Your task to perform on an android device: Open Google Chrome and open the bookmarks view Image 0: 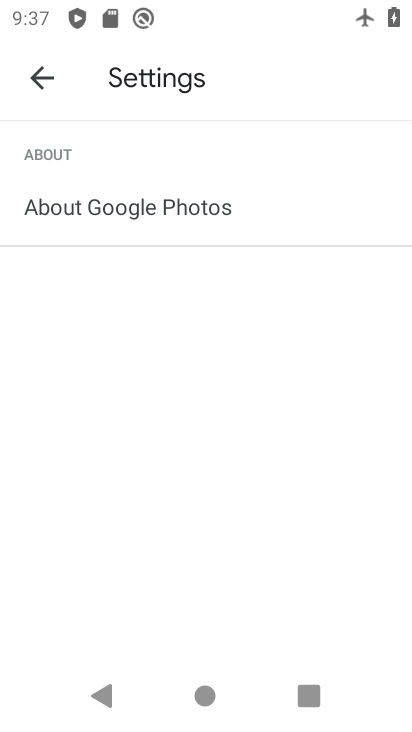
Step 0: press home button
Your task to perform on an android device: Open Google Chrome and open the bookmarks view Image 1: 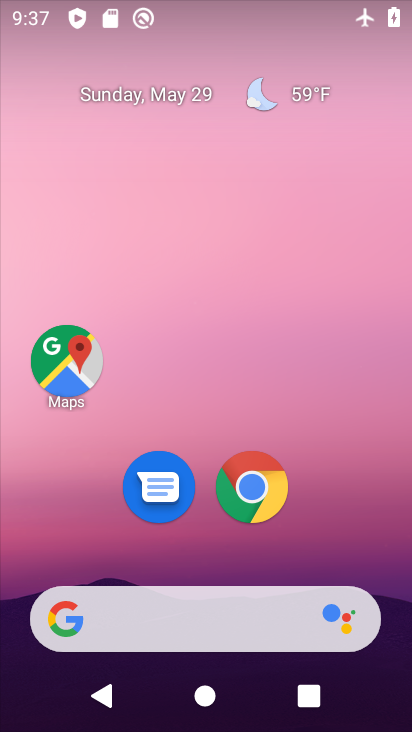
Step 1: click (242, 485)
Your task to perform on an android device: Open Google Chrome and open the bookmarks view Image 2: 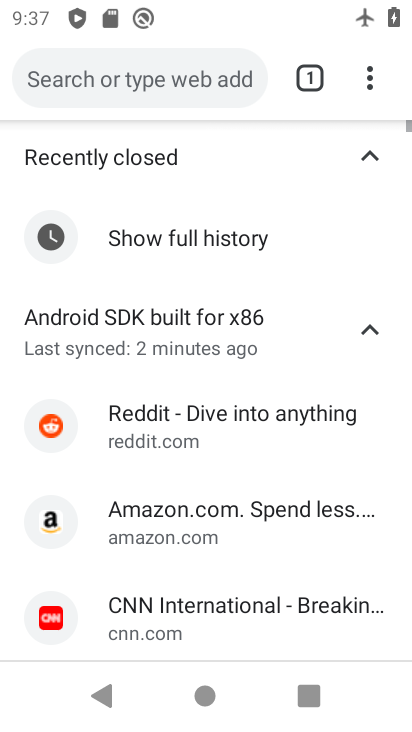
Step 2: click (362, 77)
Your task to perform on an android device: Open Google Chrome and open the bookmarks view Image 3: 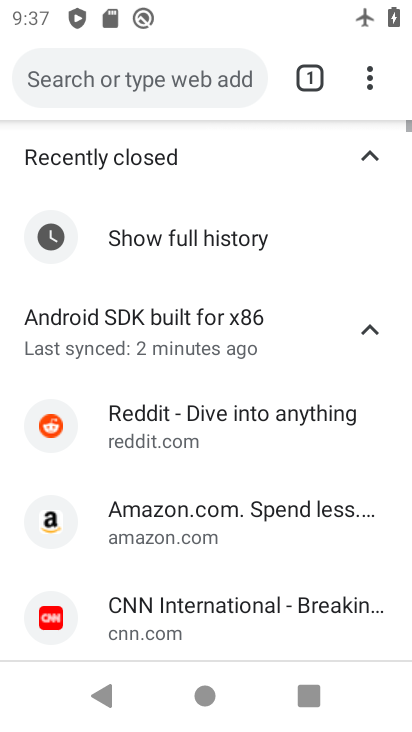
Step 3: click (362, 77)
Your task to perform on an android device: Open Google Chrome and open the bookmarks view Image 4: 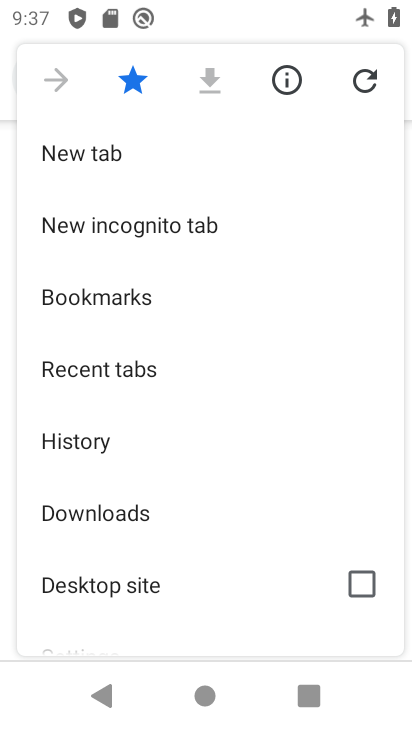
Step 4: click (100, 293)
Your task to perform on an android device: Open Google Chrome and open the bookmarks view Image 5: 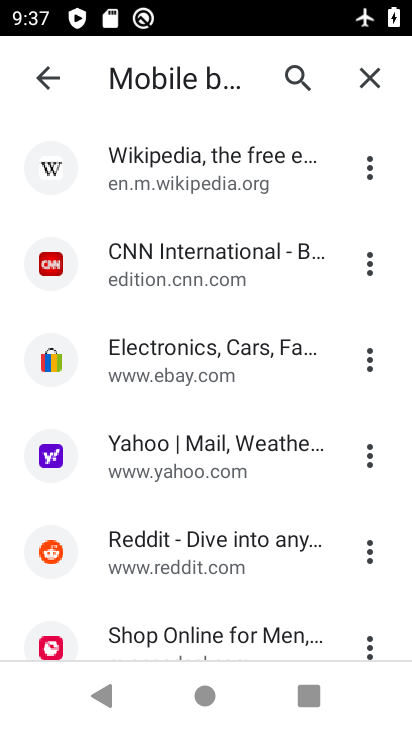
Step 5: task complete